Your task to perform on an android device: empty trash in the gmail app Image 0: 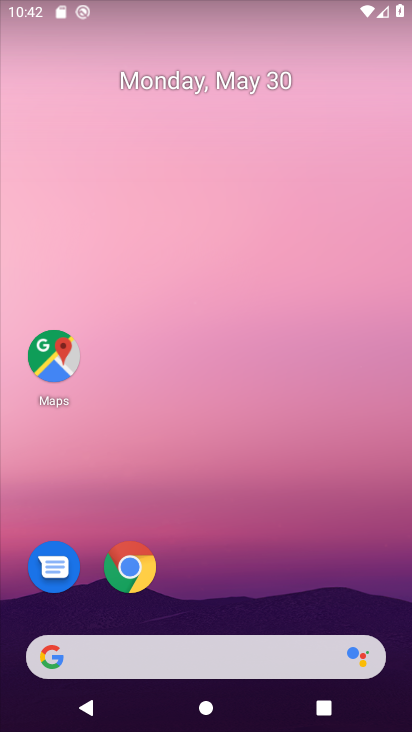
Step 0: drag from (250, 602) to (272, 116)
Your task to perform on an android device: empty trash in the gmail app Image 1: 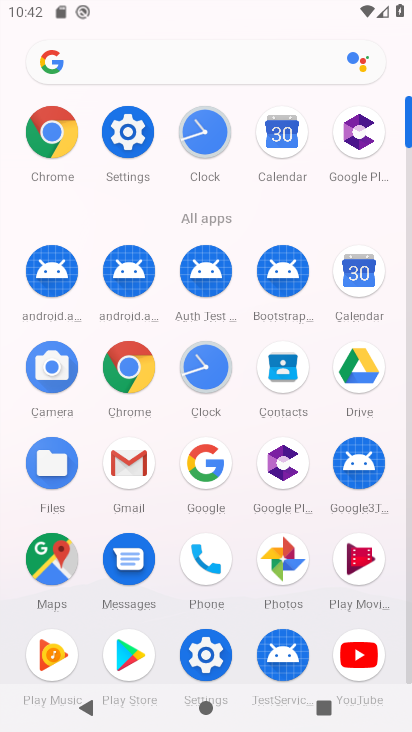
Step 1: task complete